Your task to perform on an android device: What's on my calendar tomorrow? Image 0: 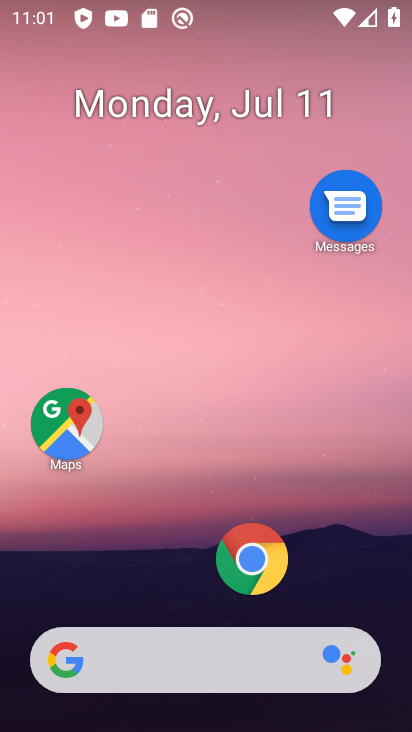
Step 0: drag from (371, 578) to (364, 63)
Your task to perform on an android device: What's on my calendar tomorrow? Image 1: 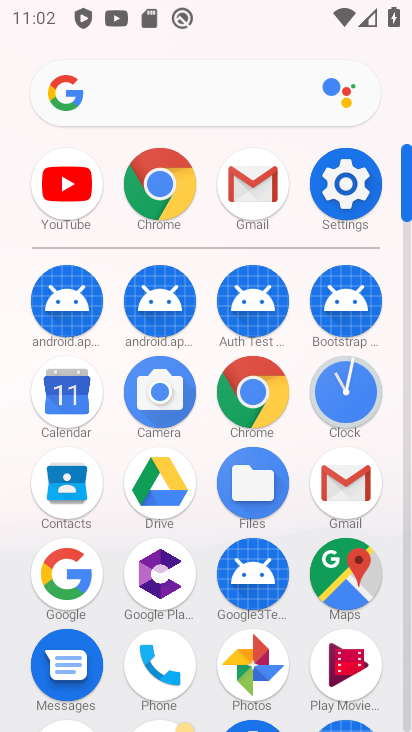
Step 1: click (63, 403)
Your task to perform on an android device: What's on my calendar tomorrow? Image 2: 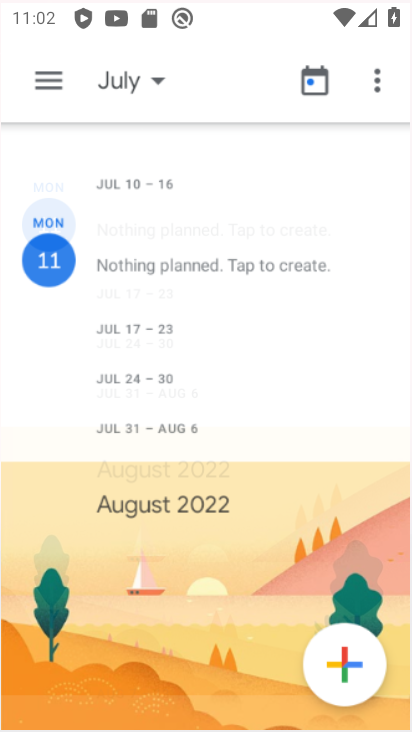
Step 2: click (63, 403)
Your task to perform on an android device: What's on my calendar tomorrow? Image 3: 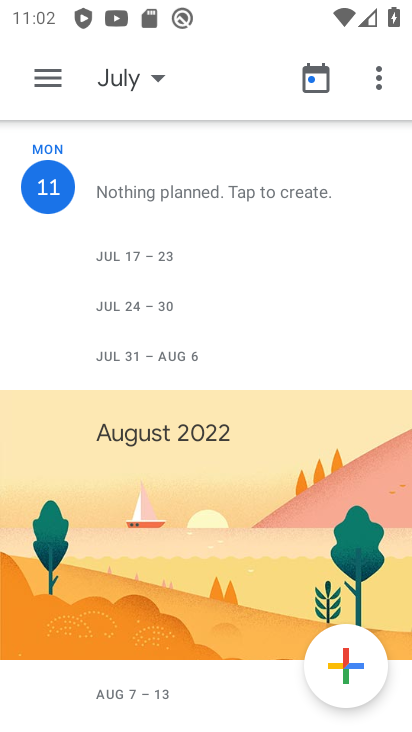
Step 3: click (157, 91)
Your task to perform on an android device: What's on my calendar tomorrow? Image 4: 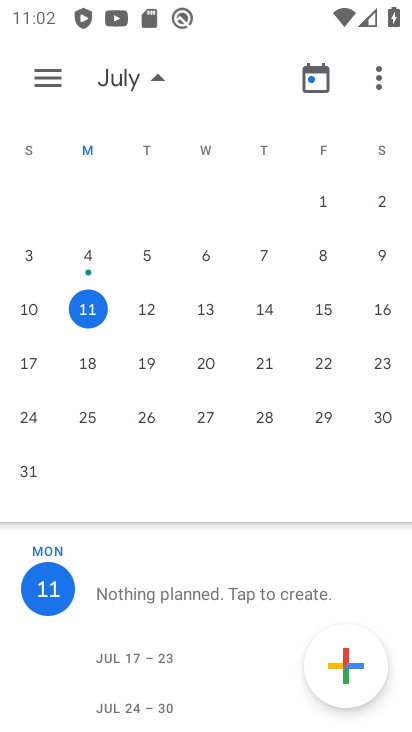
Step 4: click (213, 307)
Your task to perform on an android device: What's on my calendar tomorrow? Image 5: 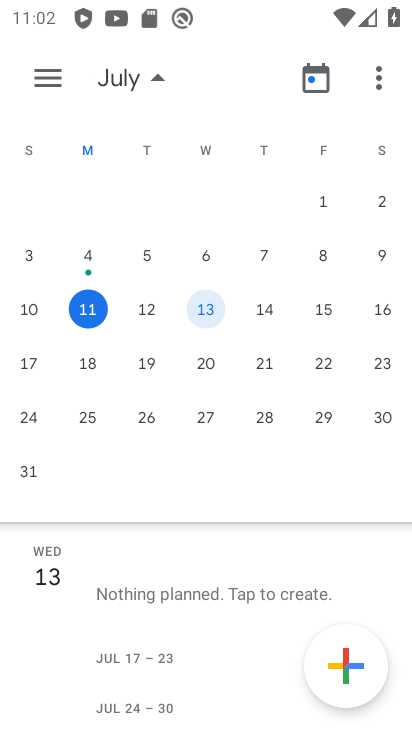
Step 5: task complete